Your task to perform on an android device: Go to notification settings Image 0: 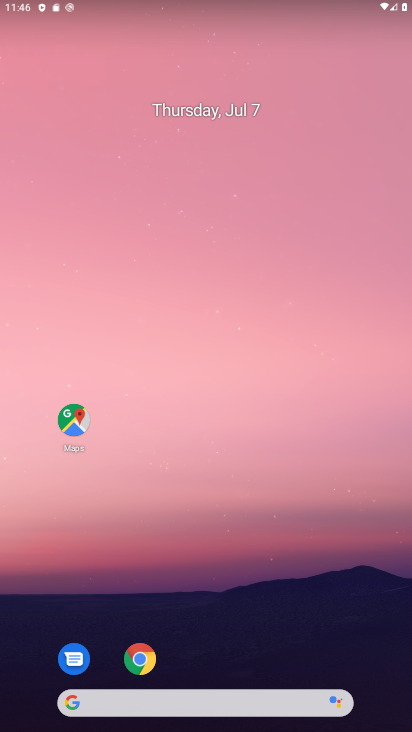
Step 0: drag from (246, 447) to (192, 80)
Your task to perform on an android device: Go to notification settings Image 1: 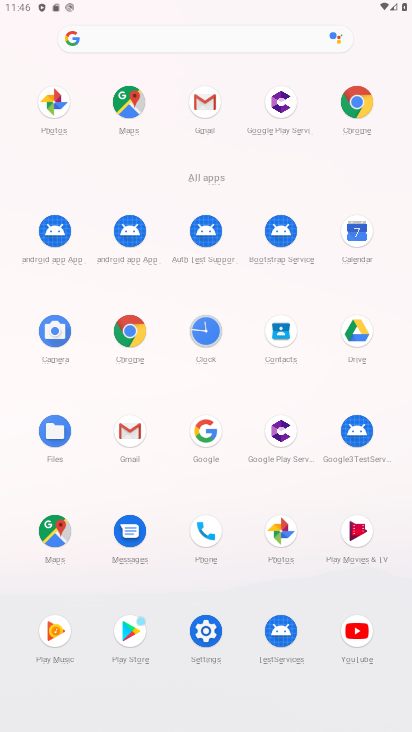
Step 1: click (208, 623)
Your task to perform on an android device: Go to notification settings Image 2: 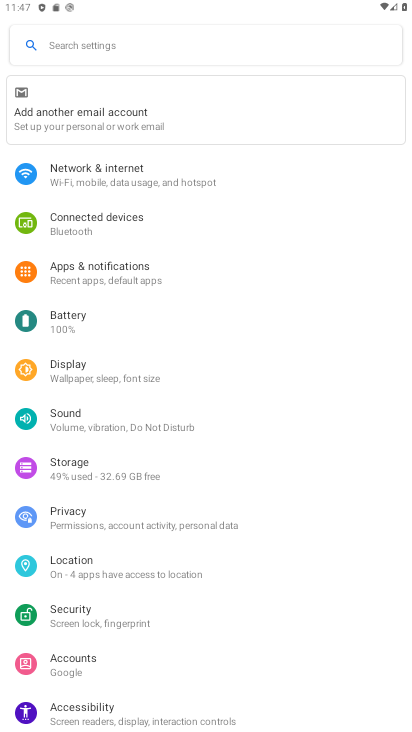
Step 2: click (91, 263)
Your task to perform on an android device: Go to notification settings Image 3: 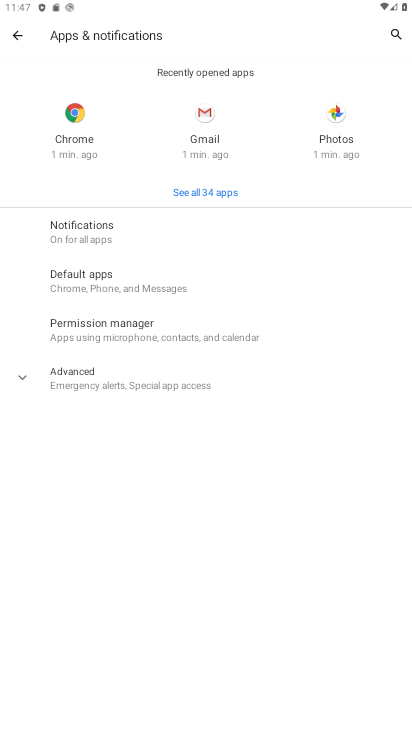
Step 3: click (77, 222)
Your task to perform on an android device: Go to notification settings Image 4: 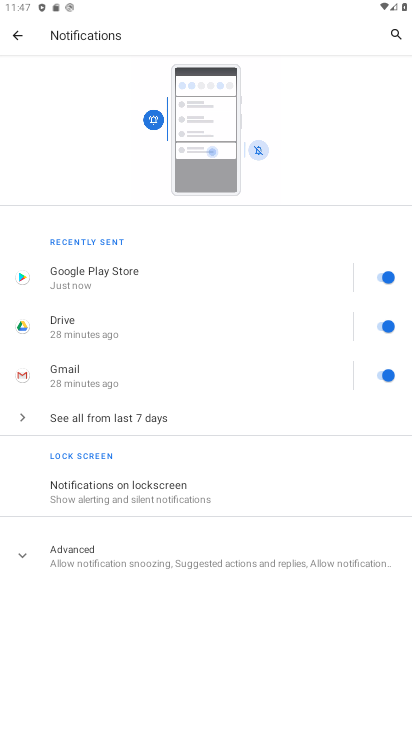
Step 4: task complete